Your task to perform on an android device: turn smart compose on in the gmail app Image 0: 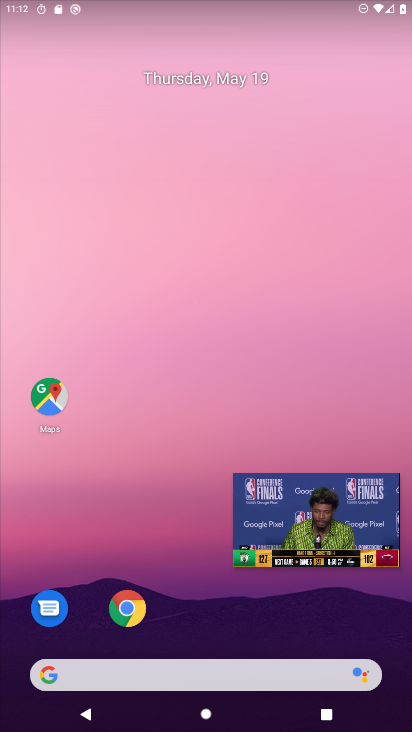
Step 0: click (337, 496)
Your task to perform on an android device: turn smart compose on in the gmail app Image 1: 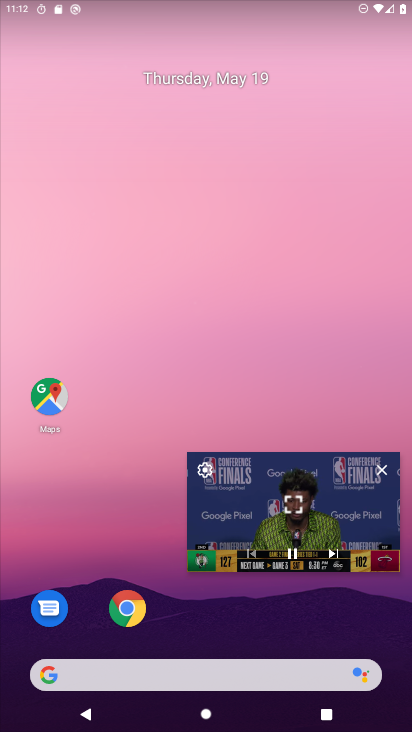
Step 1: click (377, 472)
Your task to perform on an android device: turn smart compose on in the gmail app Image 2: 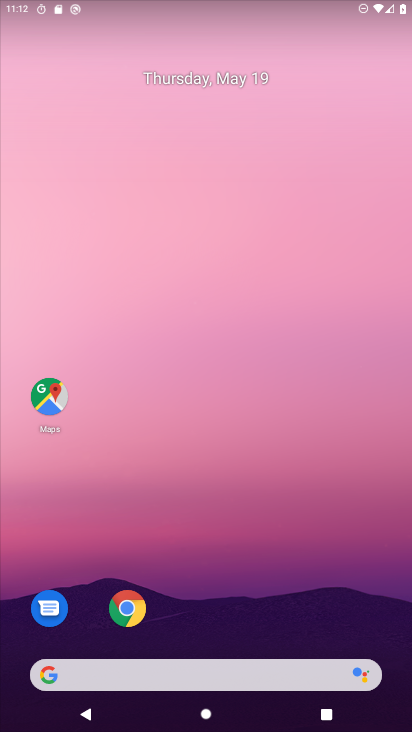
Step 2: drag from (389, 685) to (406, 265)
Your task to perform on an android device: turn smart compose on in the gmail app Image 3: 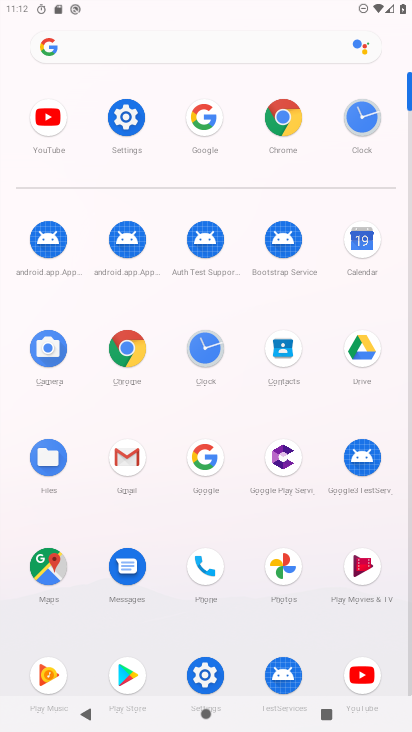
Step 3: click (124, 126)
Your task to perform on an android device: turn smart compose on in the gmail app Image 4: 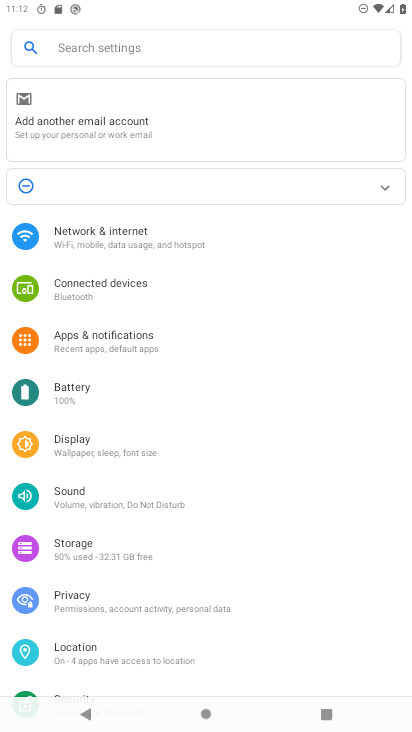
Step 4: press back button
Your task to perform on an android device: turn smart compose on in the gmail app Image 5: 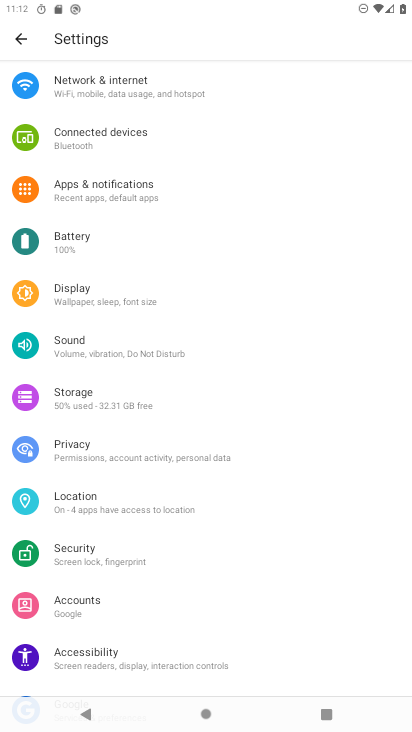
Step 5: click (17, 32)
Your task to perform on an android device: turn smart compose on in the gmail app Image 6: 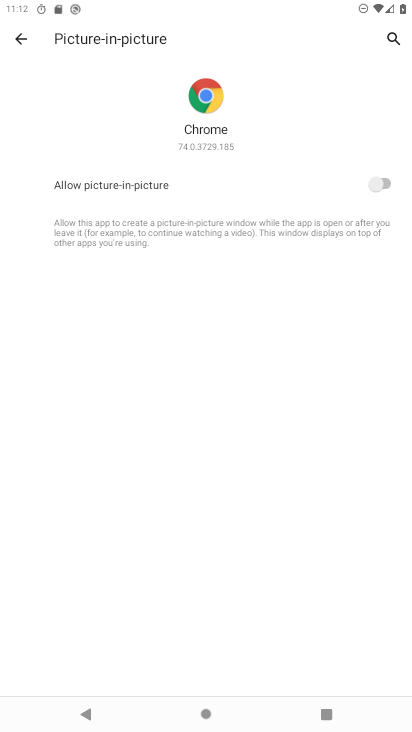
Step 6: click (14, 36)
Your task to perform on an android device: turn smart compose on in the gmail app Image 7: 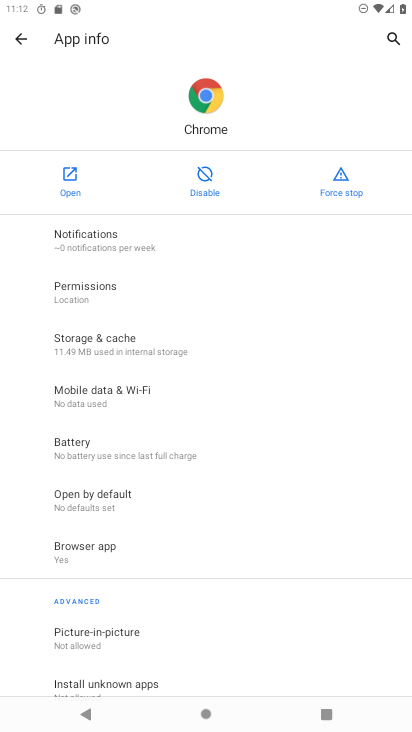
Step 7: press home button
Your task to perform on an android device: turn smart compose on in the gmail app Image 8: 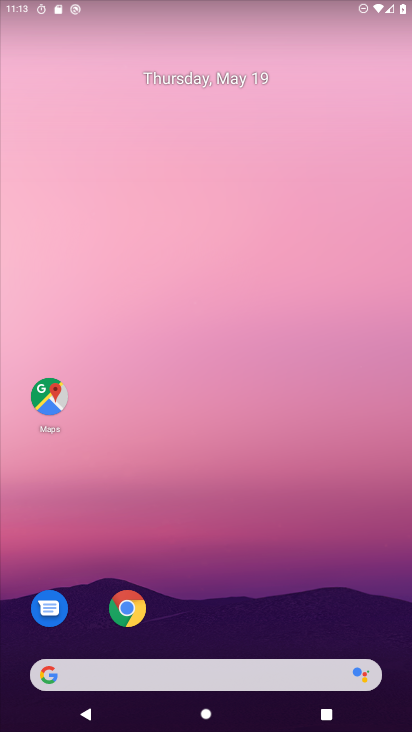
Step 8: click (365, 165)
Your task to perform on an android device: turn smart compose on in the gmail app Image 9: 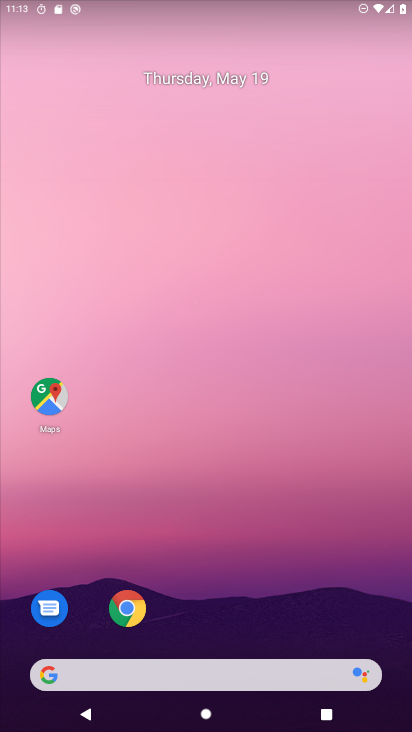
Step 9: drag from (397, 715) to (369, 160)
Your task to perform on an android device: turn smart compose on in the gmail app Image 10: 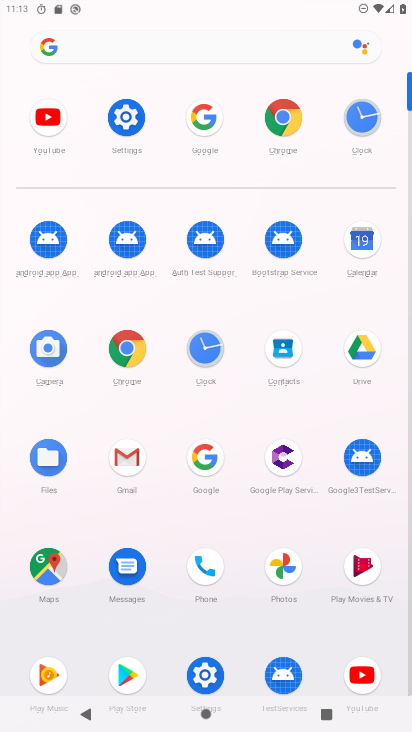
Step 10: click (131, 457)
Your task to perform on an android device: turn smart compose on in the gmail app Image 11: 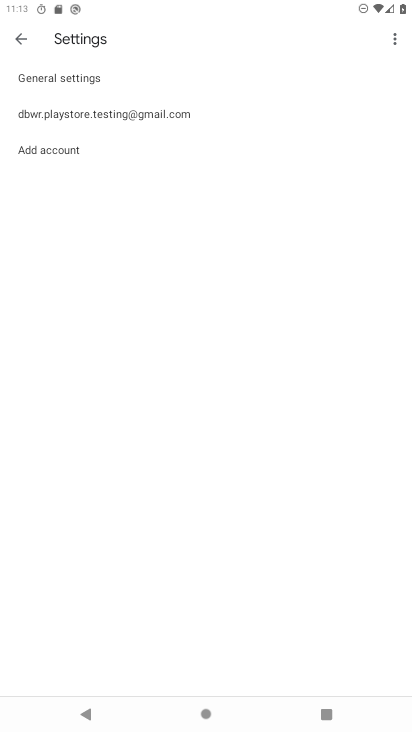
Step 11: click (29, 114)
Your task to perform on an android device: turn smart compose on in the gmail app Image 12: 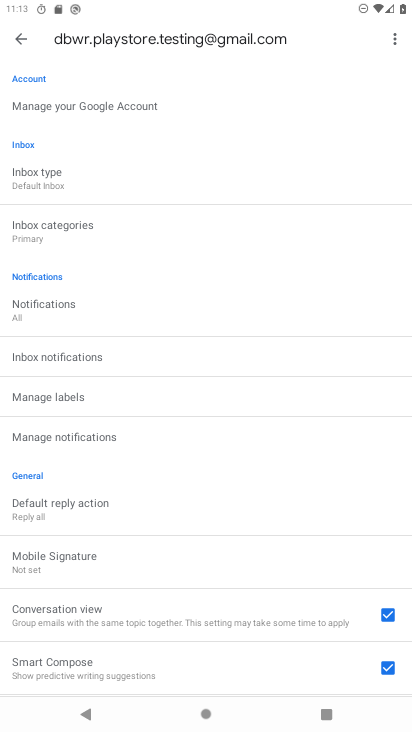
Step 12: task complete